Your task to perform on an android device: Open location settings Image 0: 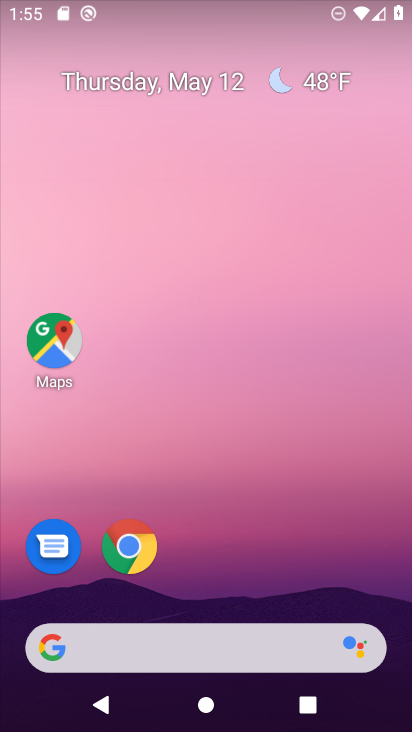
Step 0: drag from (277, 693) to (224, 402)
Your task to perform on an android device: Open location settings Image 1: 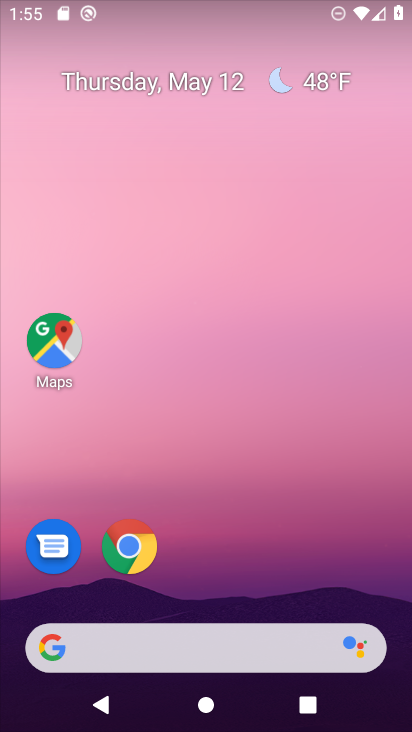
Step 1: drag from (237, 669) to (180, 365)
Your task to perform on an android device: Open location settings Image 2: 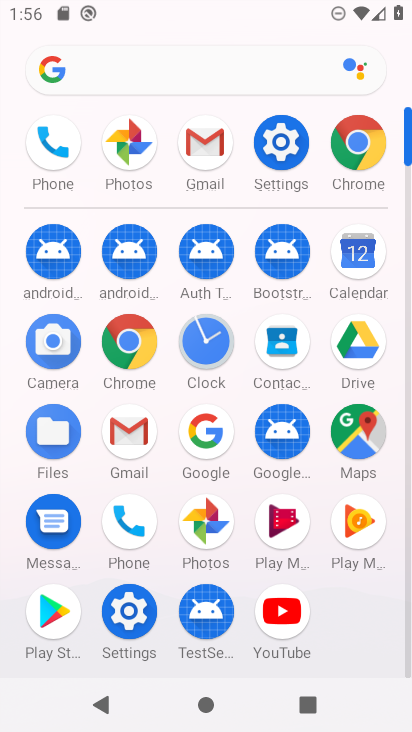
Step 2: click (133, 620)
Your task to perform on an android device: Open location settings Image 3: 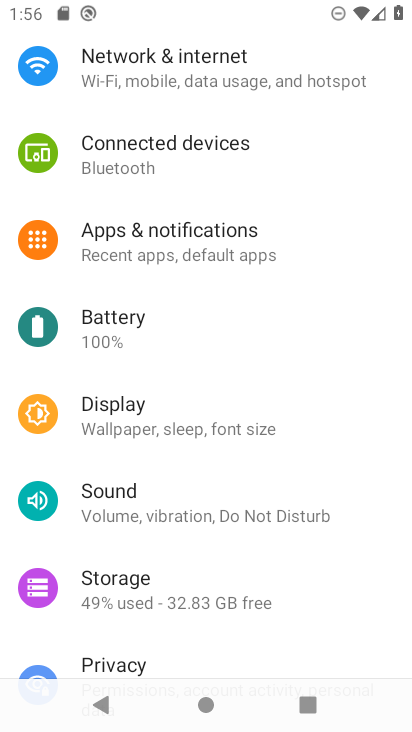
Step 3: drag from (135, 85) to (134, 216)
Your task to perform on an android device: Open location settings Image 4: 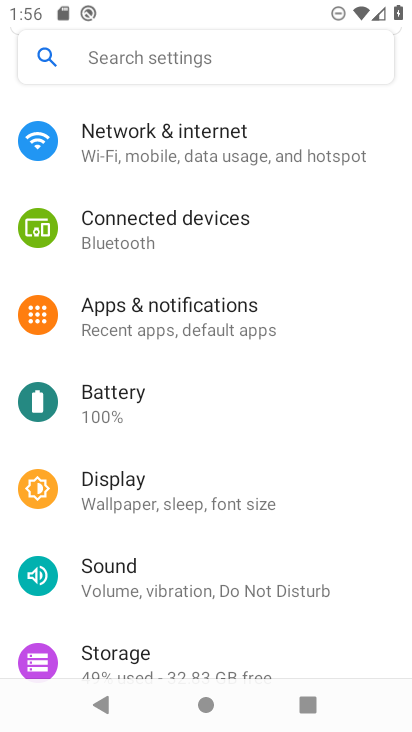
Step 4: click (140, 67)
Your task to perform on an android device: Open location settings Image 5: 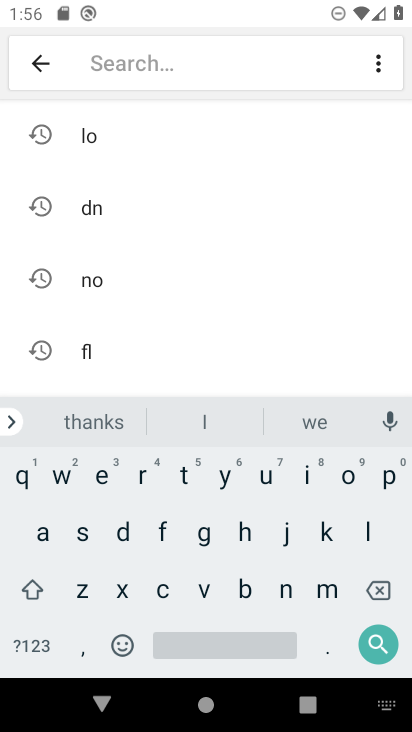
Step 5: click (117, 135)
Your task to perform on an android device: Open location settings Image 6: 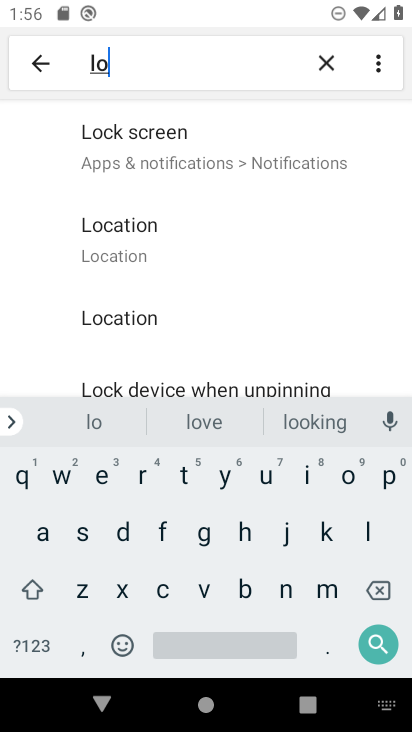
Step 6: click (152, 244)
Your task to perform on an android device: Open location settings Image 7: 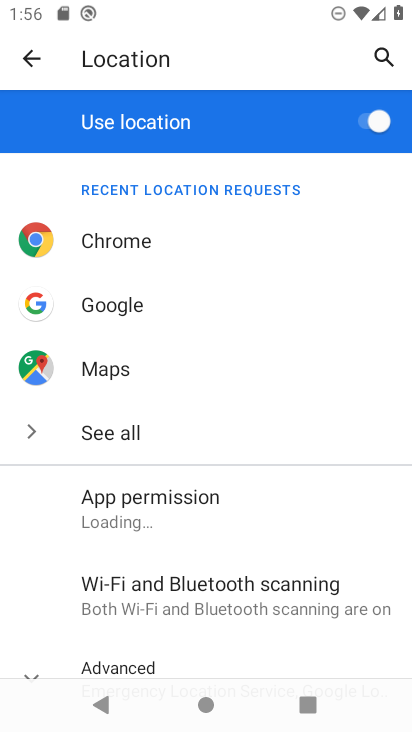
Step 7: task complete